Your task to perform on an android device: Open calendar and show me the second week of next month Image 0: 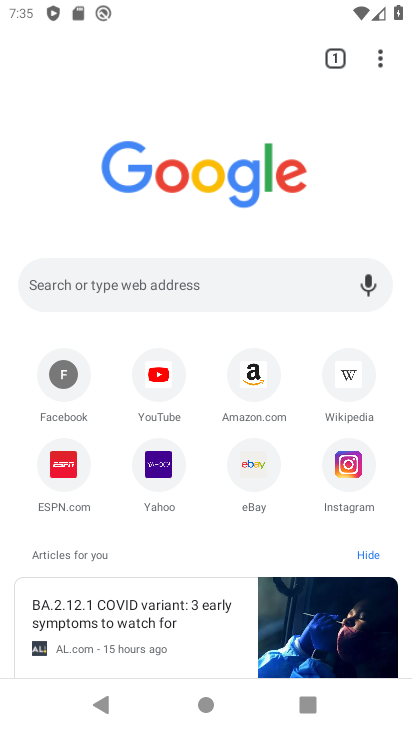
Step 0: press home button
Your task to perform on an android device: Open calendar and show me the second week of next month Image 1: 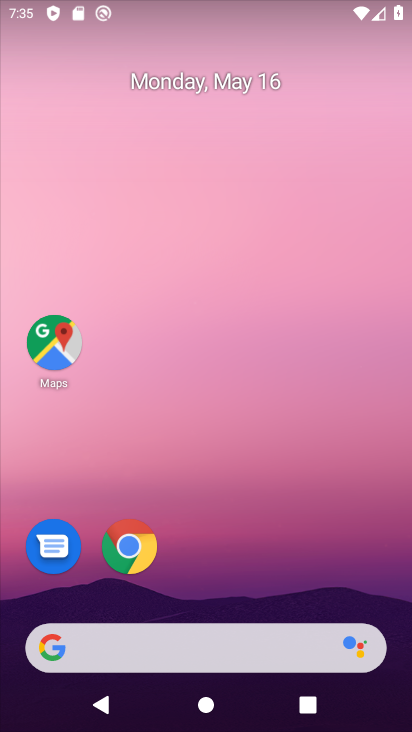
Step 1: drag from (204, 570) to (242, 62)
Your task to perform on an android device: Open calendar and show me the second week of next month Image 2: 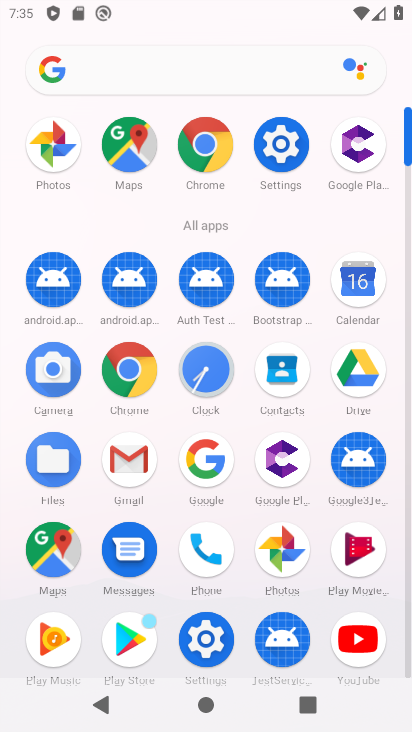
Step 2: click (351, 307)
Your task to perform on an android device: Open calendar and show me the second week of next month Image 3: 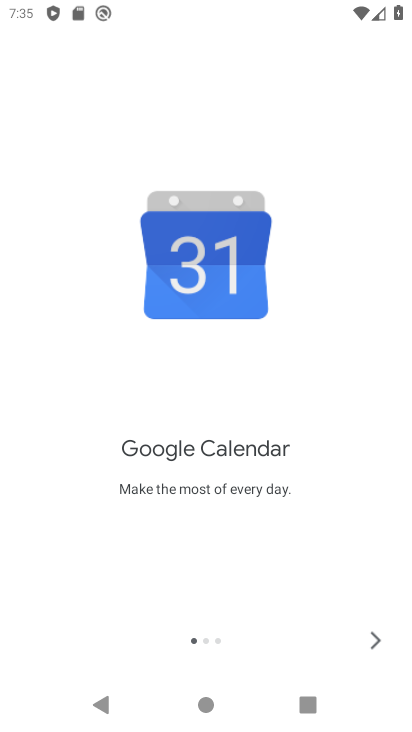
Step 3: click (380, 649)
Your task to perform on an android device: Open calendar and show me the second week of next month Image 4: 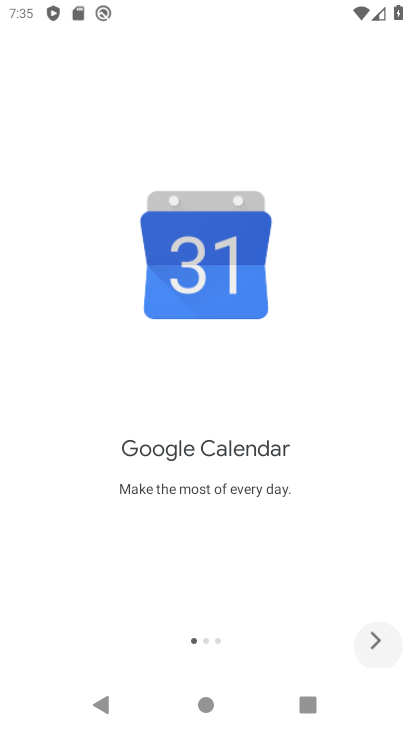
Step 4: click (380, 649)
Your task to perform on an android device: Open calendar and show me the second week of next month Image 5: 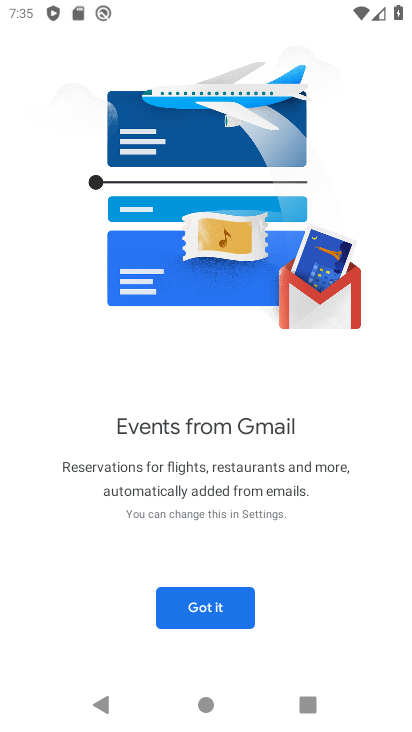
Step 5: click (380, 649)
Your task to perform on an android device: Open calendar and show me the second week of next month Image 6: 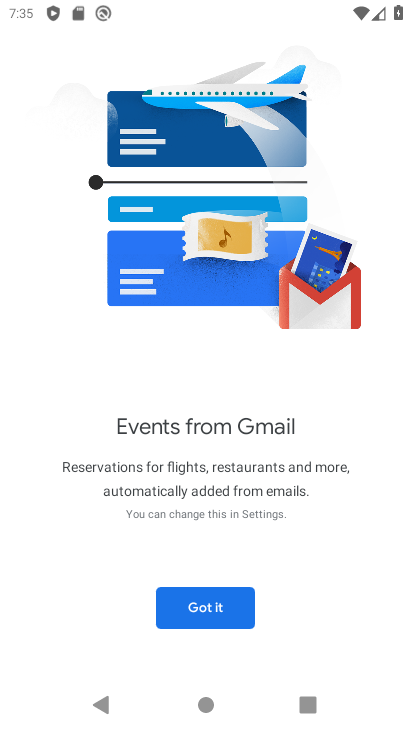
Step 6: click (193, 613)
Your task to perform on an android device: Open calendar and show me the second week of next month Image 7: 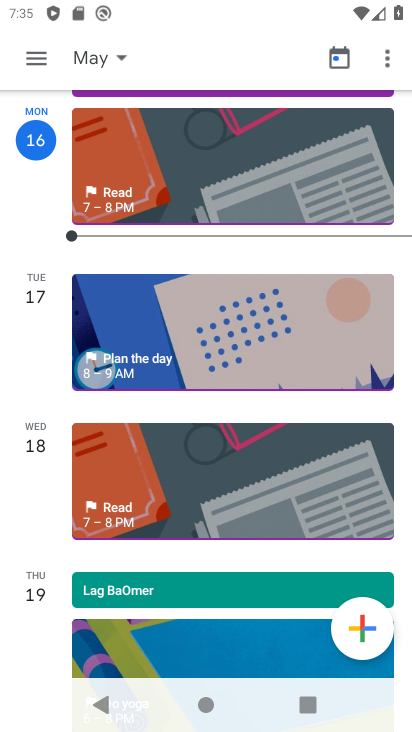
Step 7: click (101, 73)
Your task to perform on an android device: Open calendar and show me the second week of next month Image 8: 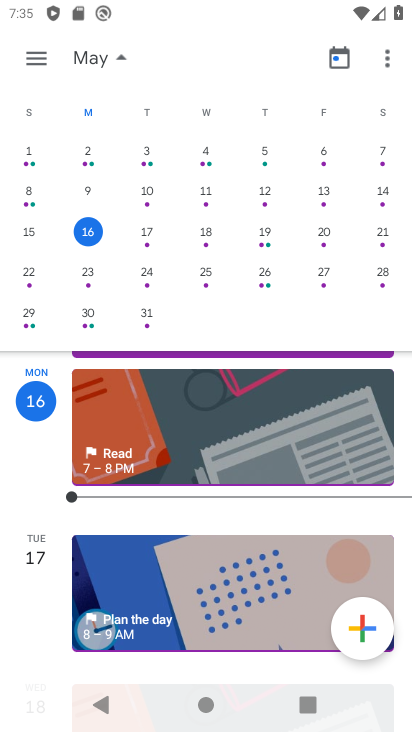
Step 8: drag from (376, 282) to (9, 289)
Your task to perform on an android device: Open calendar and show me the second week of next month Image 9: 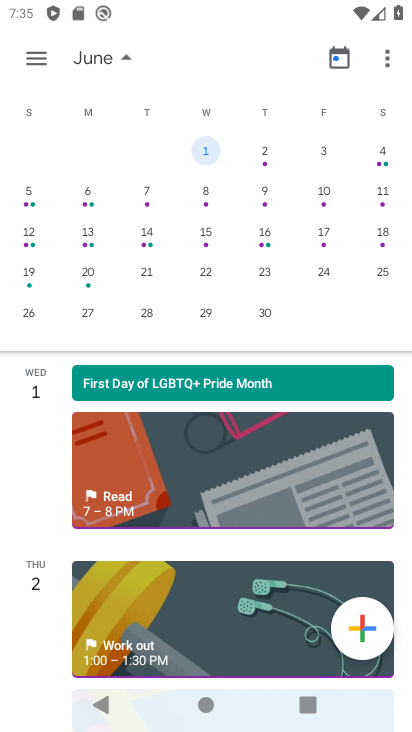
Step 9: click (144, 237)
Your task to perform on an android device: Open calendar and show me the second week of next month Image 10: 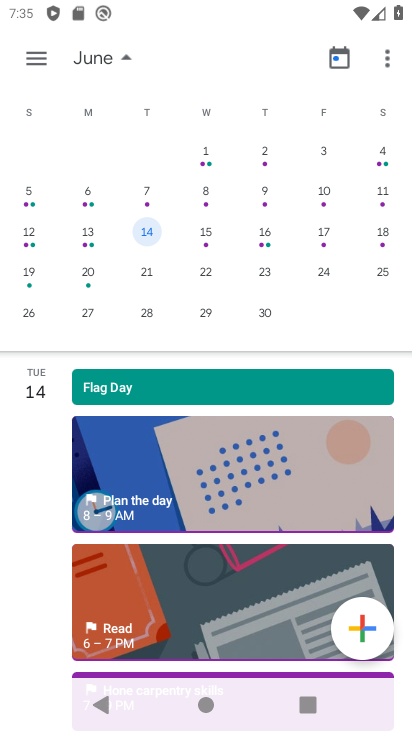
Step 10: task complete